Your task to perform on an android device: Open Chrome and go to settings Image 0: 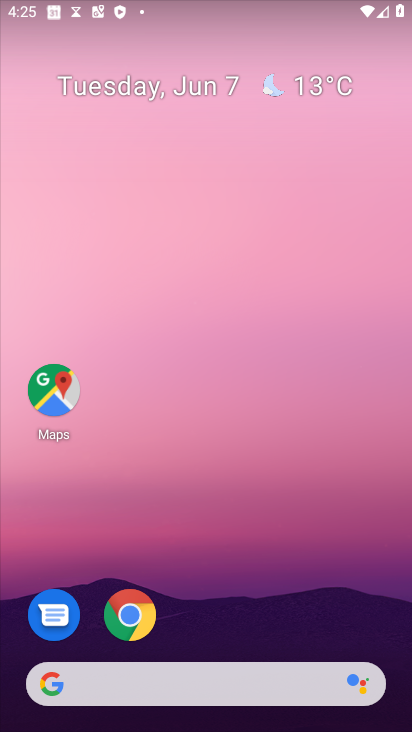
Step 0: drag from (265, 623) to (156, 265)
Your task to perform on an android device: Open Chrome and go to settings Image 1: 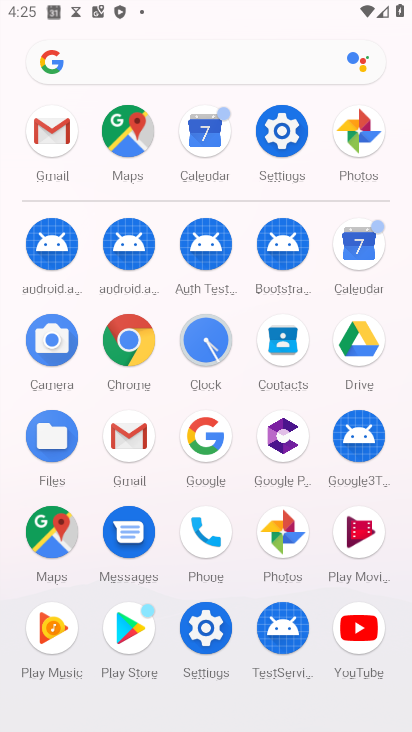
Step 1: click (266, 121)
Your task to perform on an android device: Open Chrome and go to settings Image 2: 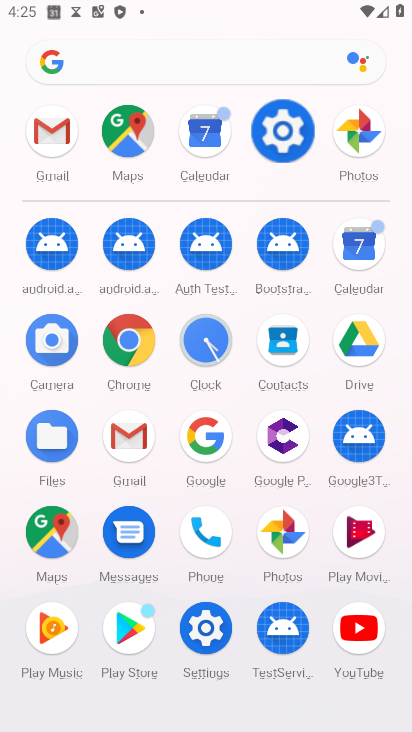
Step 2: click (274, 130)
Your task to perform on an android device: Open Chrome and go to settings Image 3: 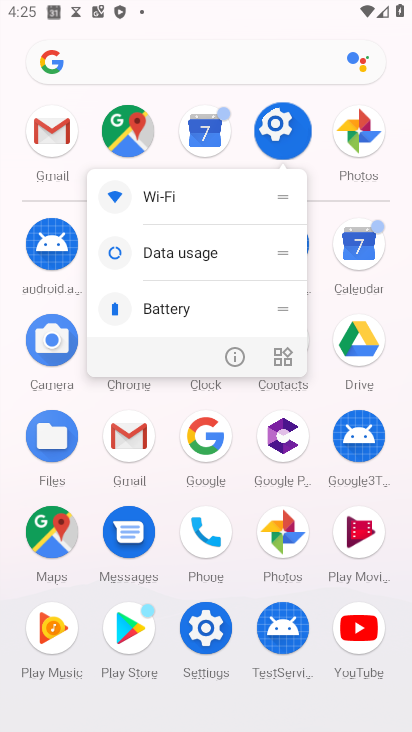
Step 3: click (274, 130)
Your task to perform on an android device: Open Chrome and go to settings Image 4: 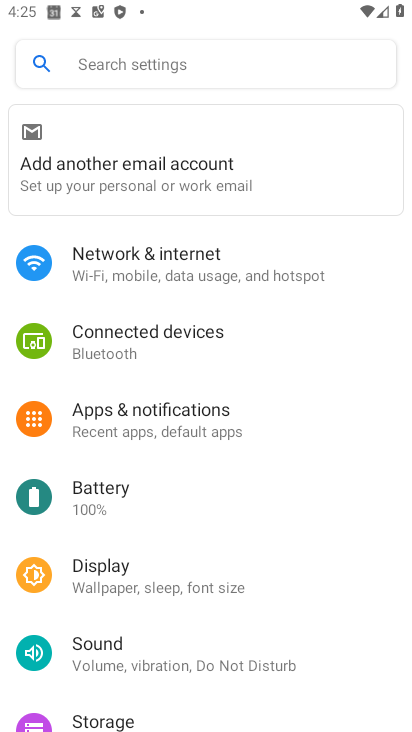
Step 4: task complete